Your task to perform on an android device: see creations saved in the google photos Image 0: 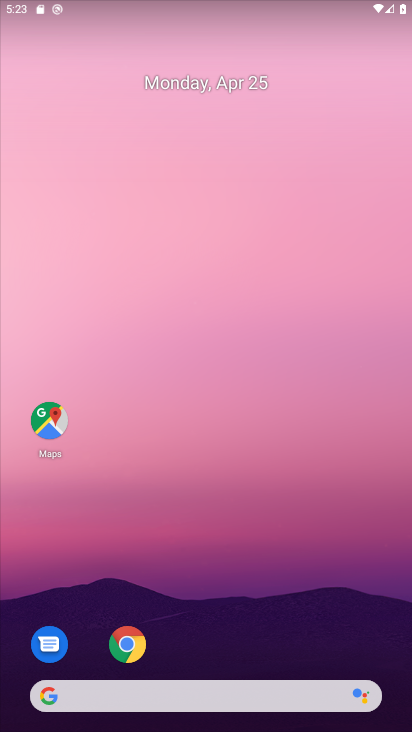
Step 0: drag from (263, 621) to (201, 62)
Your task to perform on an android device: see creations saved in the google photos Image 1: 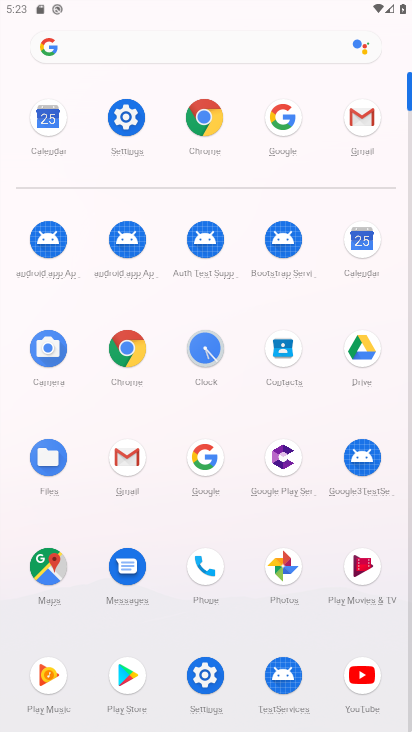
Step 1: click (288, 576)
Your task to perform on an android device: see creations saved in the google photos Image 2: 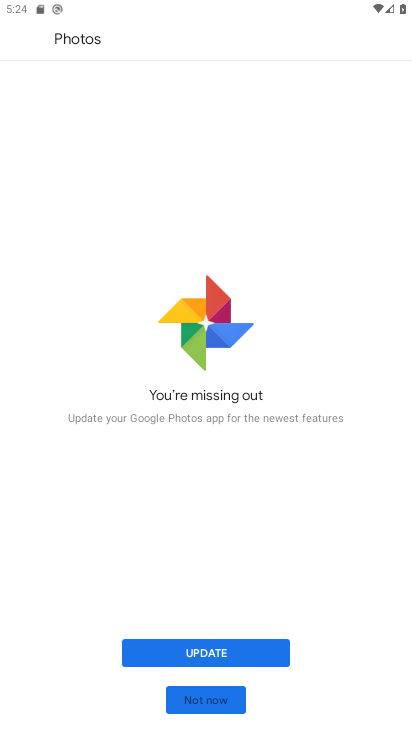
Step 2: click (219, 703)
Your task to perform on an android device: see creations saved in the google photos Image 3: 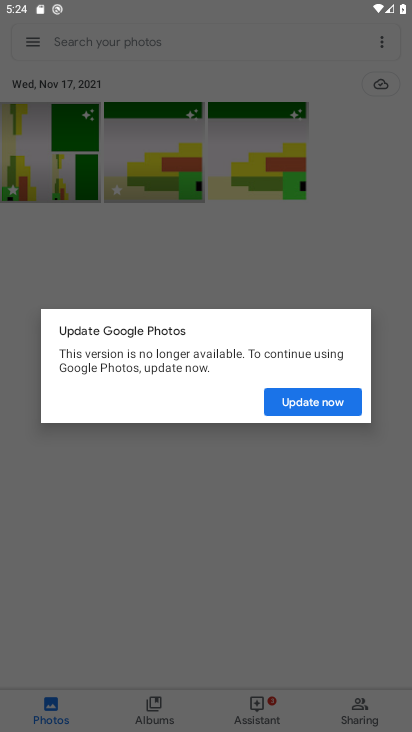
Step 3: click (323, 403)
Your task to perform on an android device: see creations saved in the google photos Image 4: 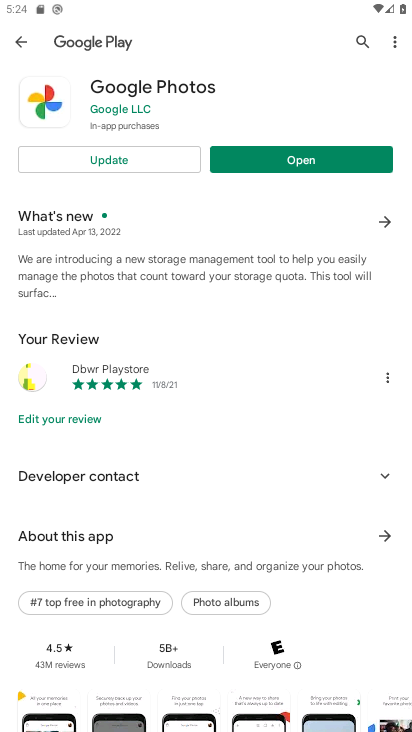
Step 4: click (115, 158)
Your task to perform on an android device: see creations saved in the google photos Image 5: 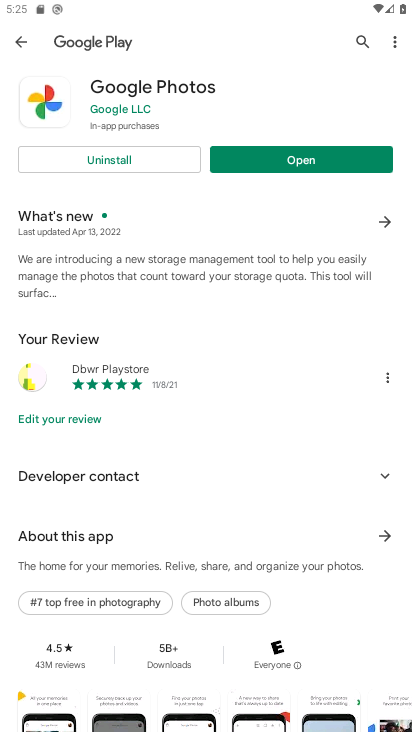
Step 5: click (328, 156)
Your task to perform on an android device: see creations saved in the google photos Image 6: 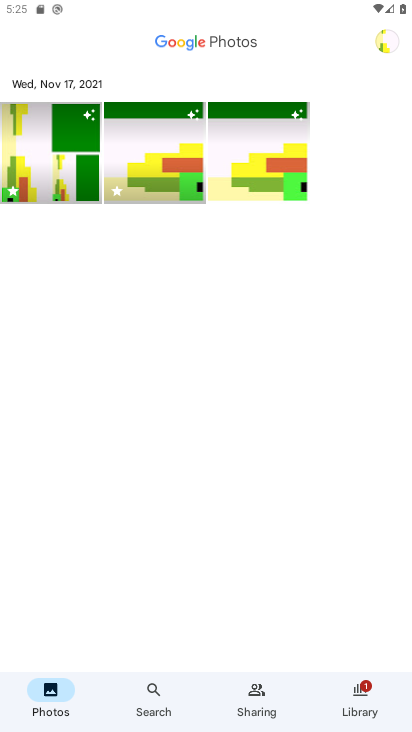
Step 6: click (160, 693)
Your task to perform on an android device: see creations saved in the google photos Image 7: 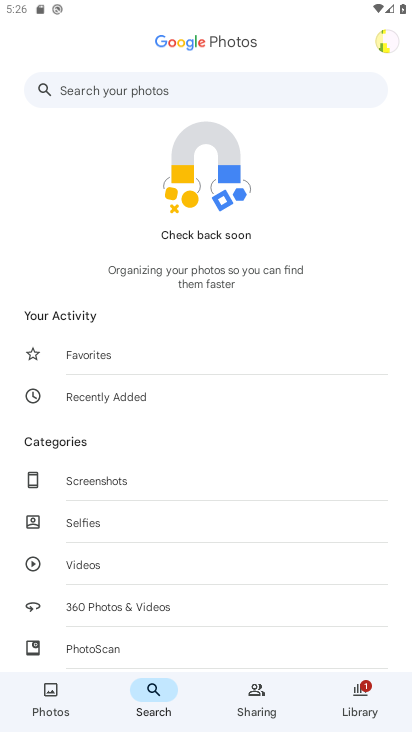
Step 7: click (134, 89)
Your task to perform on an android device: see creations saved in the google photos Image 8: 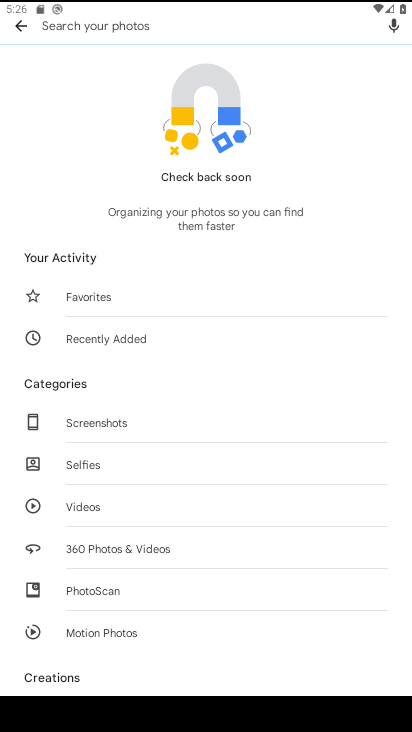
Step 8: click (134, 89)
Your task to perform on an android device: see creations saved in the google photos Image 9: 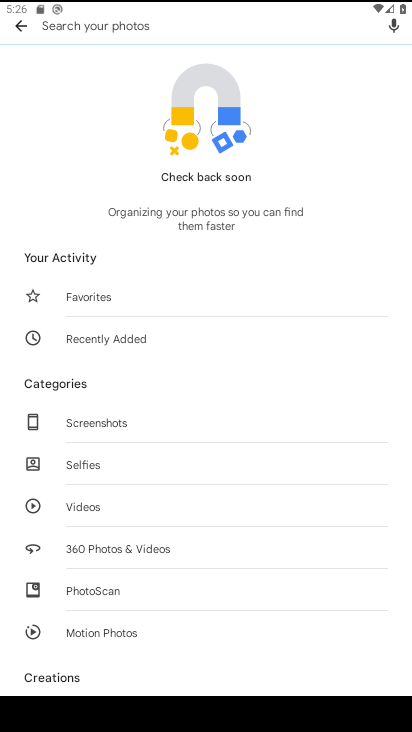
Step 9: type "creations"
Your task to perform on an android device: see creations saved in the google photos Image 10: 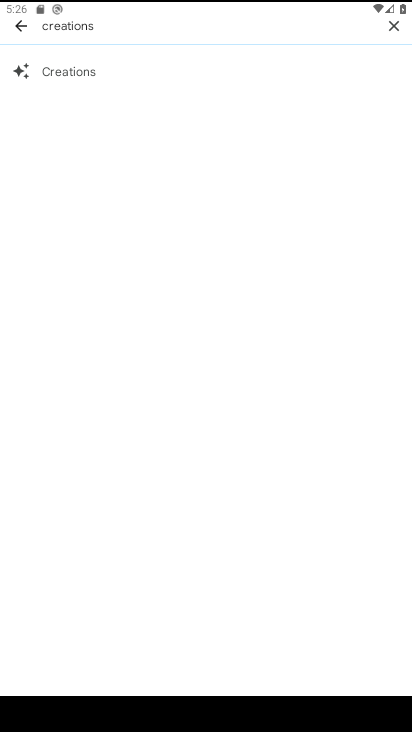
Step 10: click (85, 51)
Your task to perform on an android device: see creations saved in the google photos Image 11: 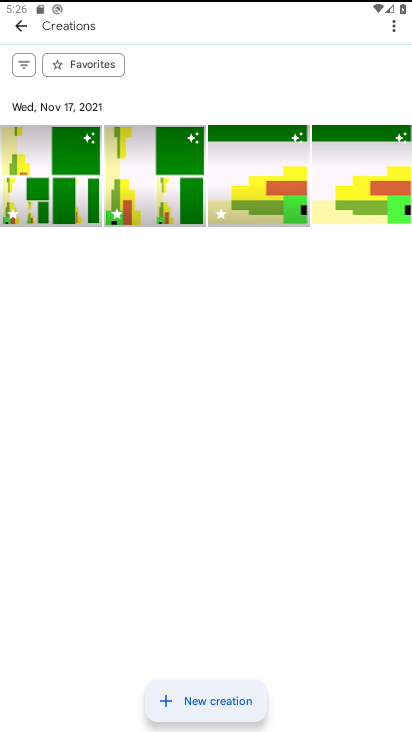
Step 11: task complete